Your task to perform on an android device: turn off location Image 0: 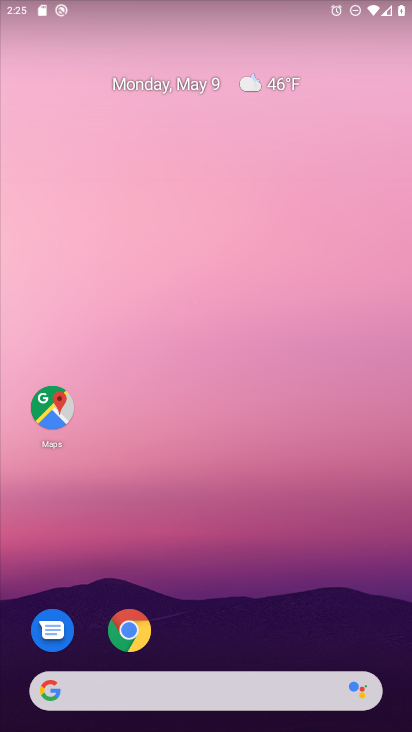
Step 0: drag from (287, 712) to (238, 313)
Your task to perform on an android device: turn off location Image 1: 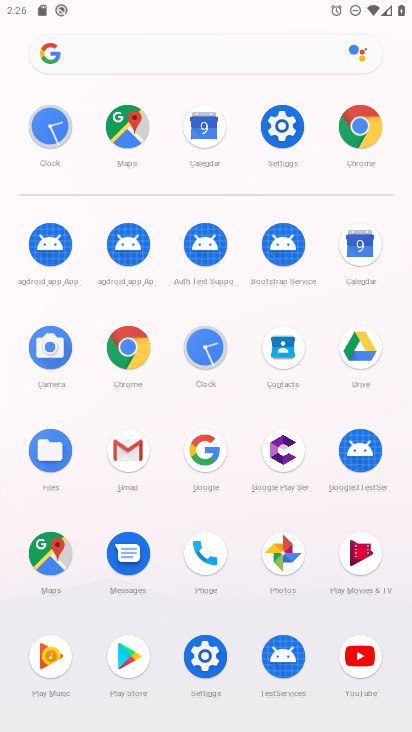
Step 1: click (209, 666)
Your task to perform on an android device: turn off location Image 2: 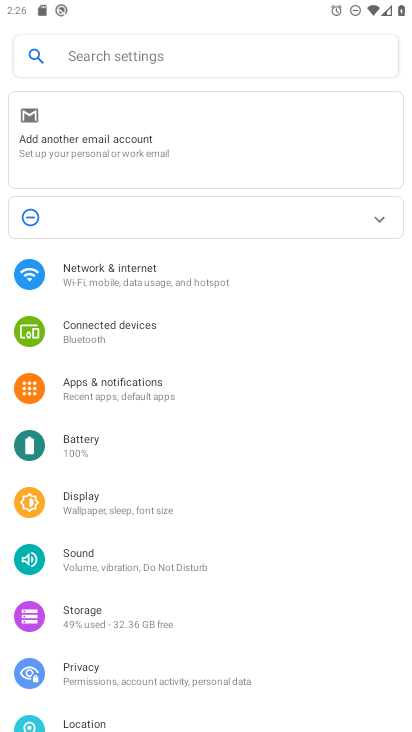
Step 2: click (99, 720)
Your task to perform on an android device: turn off location Image 3: 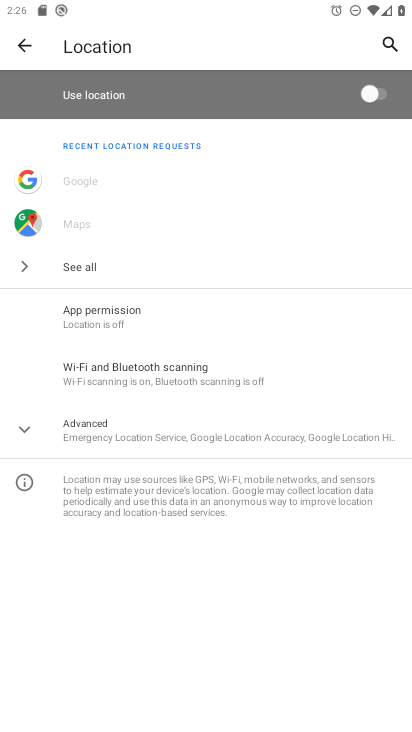
Step 3: click (361, 96)
Your task to perform on an android device: turn off location Image 4: 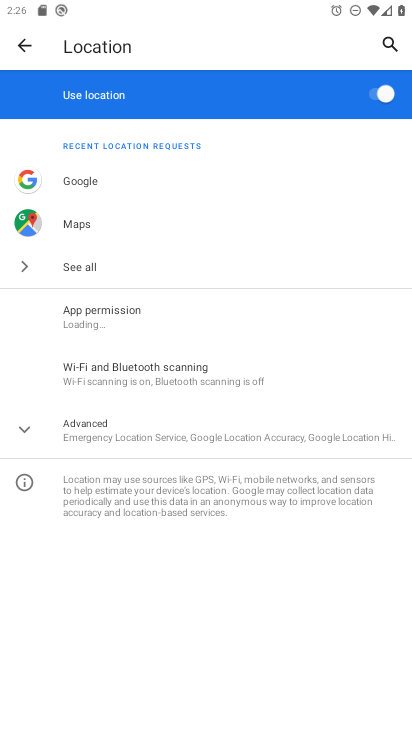
Step 4: click (361, 96)
Your task to perform on an android device: turn off location Image 5: 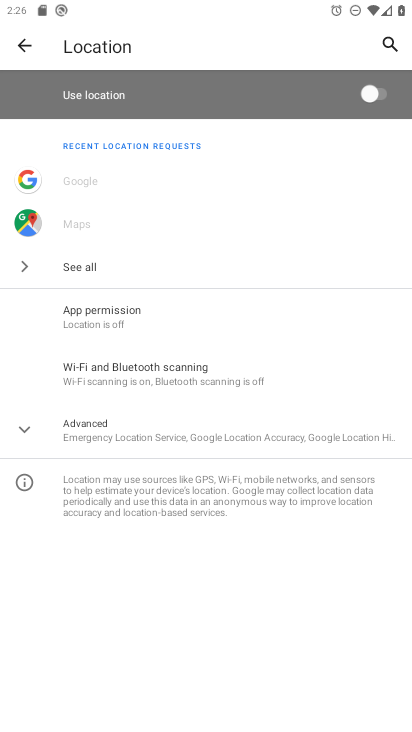
Step 5: task complete